Your task to perform on an android device: Go to wifi settings Image 0: 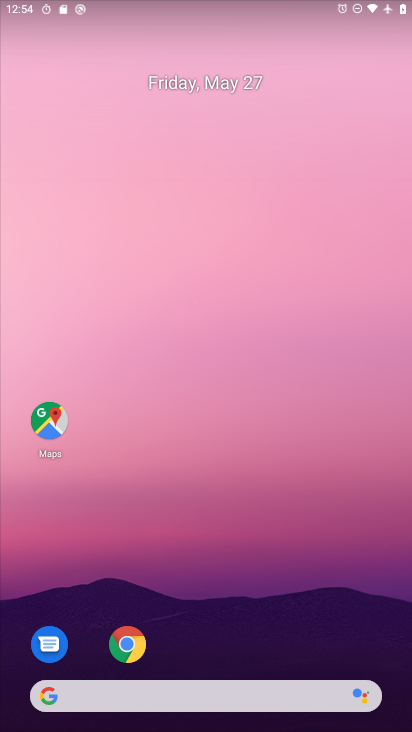
Step 0: drag from (206, 626) to (192, 233)
Your task to perform on an android device: Go to wifi settings Image 1: 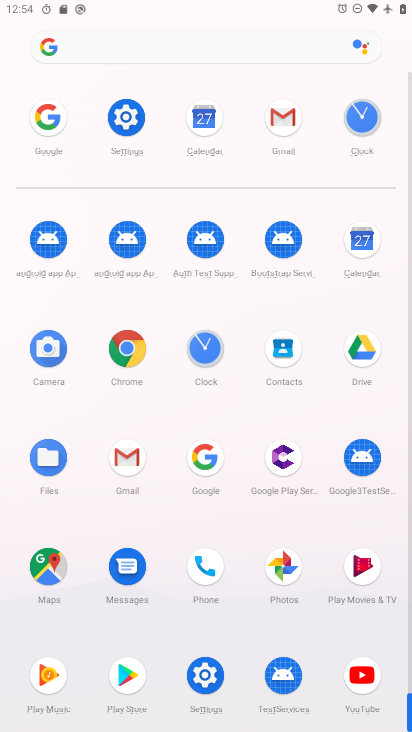
Step 1: click (127, 130)
Your task to perform on an android device: Go to wifi settings Image 2: 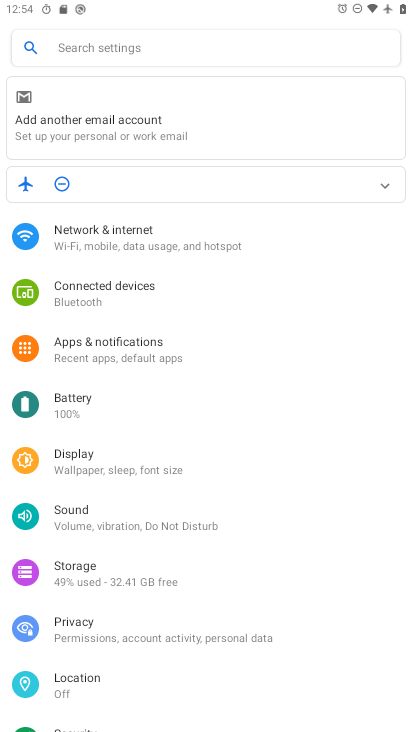
Step 2: click (132, 218)
Your task to perform on an android device: Go to wifi settings Image 3: 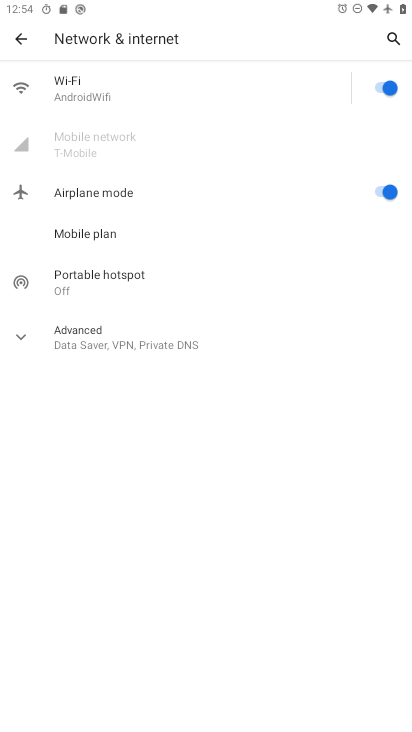
Step 3: click (118, 94)
Your task to perform on an android device: Go to wifi settings Image 4: 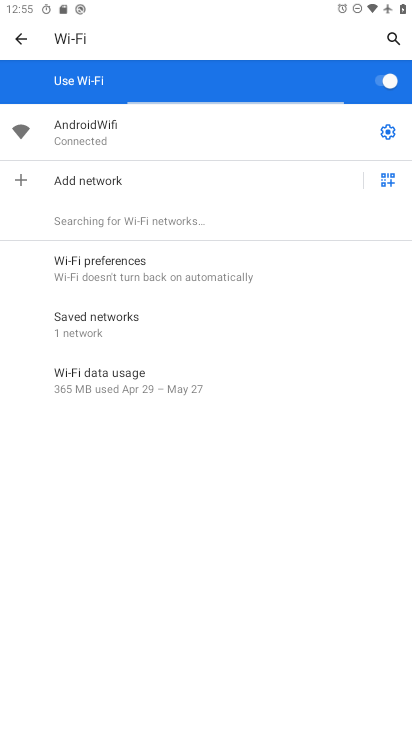
Step 4: task complete